Your task to perform on an android device: Go to Google maps Image 0: 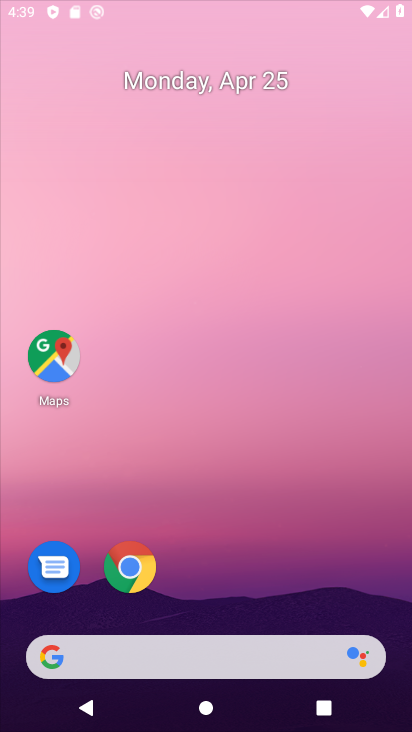
Step 0: click (322, 30)
Your task to perform on an android device: Go to Google maps Image 1: 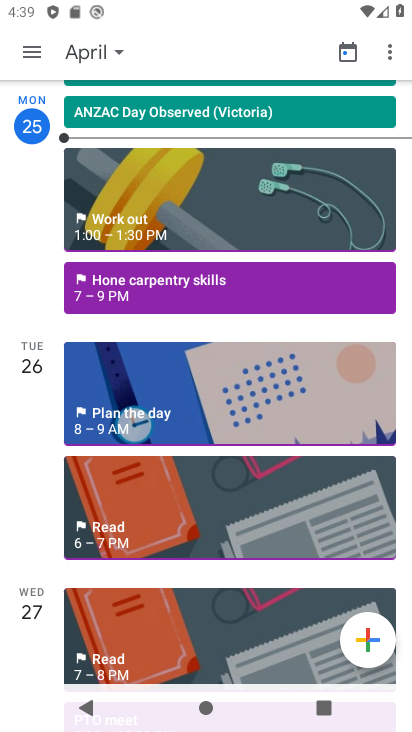
Step 1: press back button
Your task to perform on an android device: Go to Google maps Image 2: 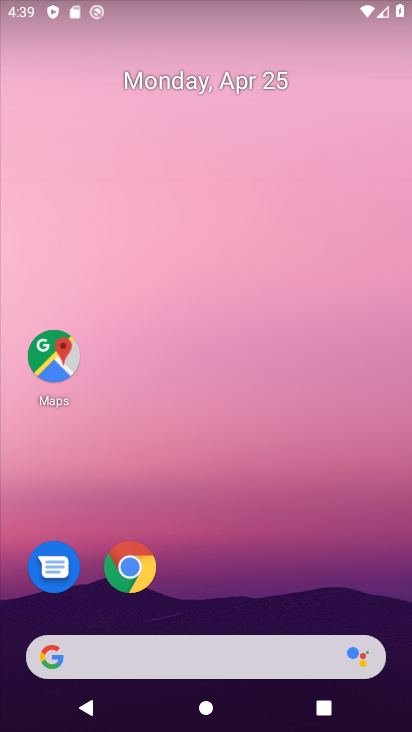
Step 2: click (42, 339)
Your task to perform on an android device: Go to Google maps Image 3: 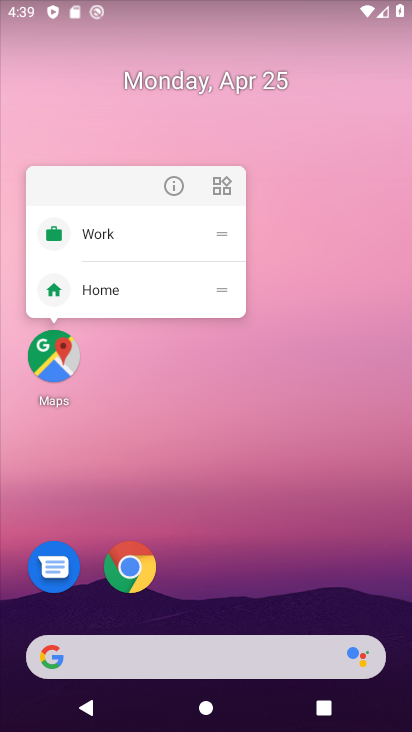
Step 3: click (49, 347)
Your task to perform on an android device: Go to Google maps Image 4: 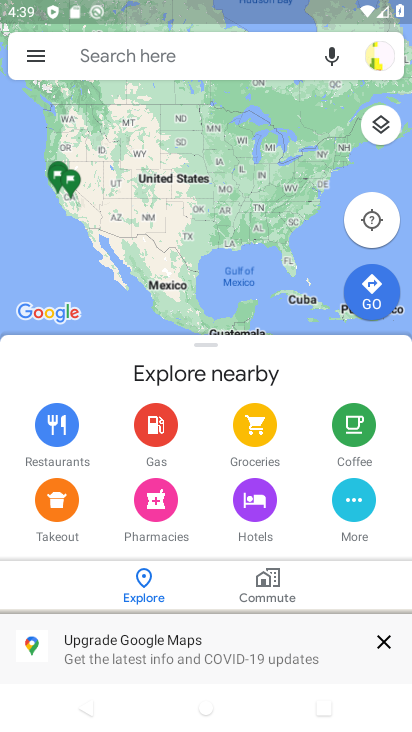
Step 4: task complete